Your task to perform on an android device: star an email in the gmail app Image 0: 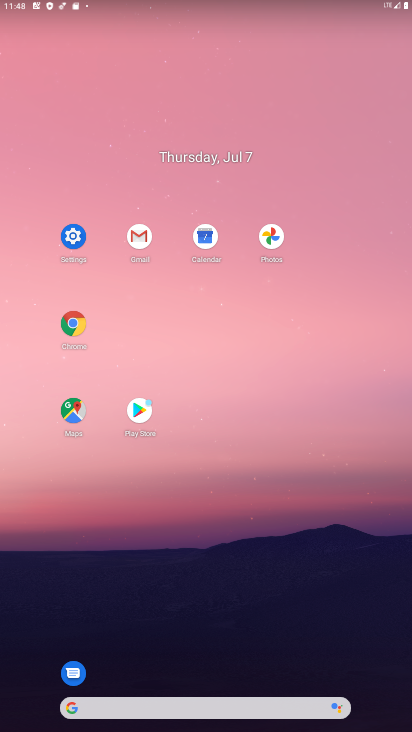
Step 0: click (138, 237)
Your task to perform on an android device: star an email in the gmail app Image 1: 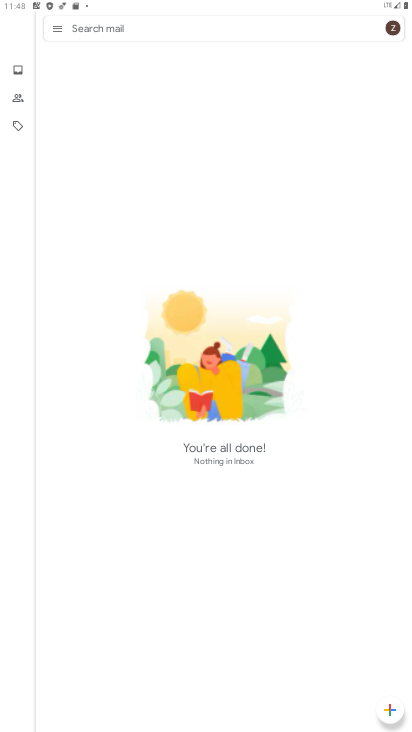
Step 1: press home button
Your task to perform on an android device: star an email in the gmail app Image 2: 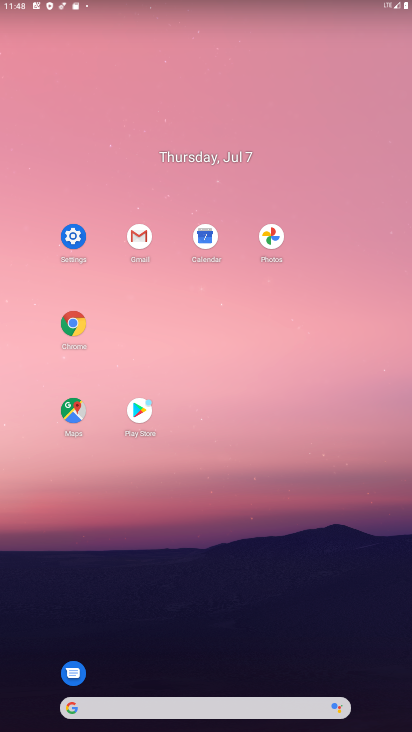
Step 2: click (145, 238)
Your task to perform on an android device: star an email in the gmail app Image 3: 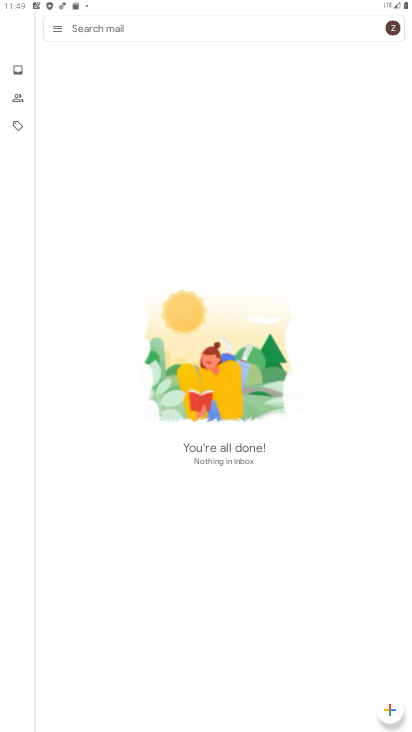
Step 3: task complete